Your task to perform on an android device: turn on javascript in the chrome app Image 0: 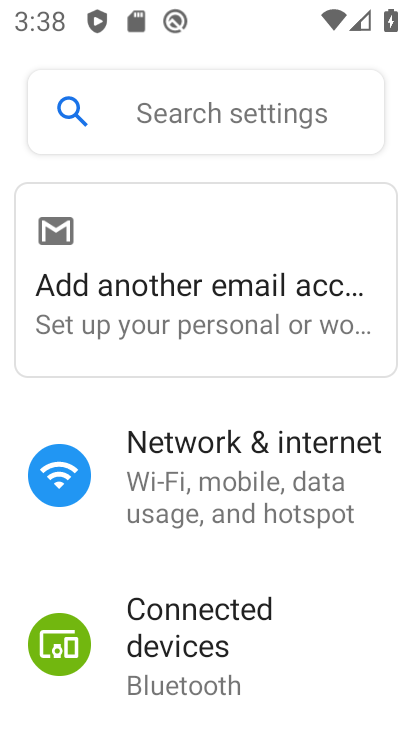
Step 0: press back button
Your task to perform on an android device: turn on javascript in the chrome app Image 1: 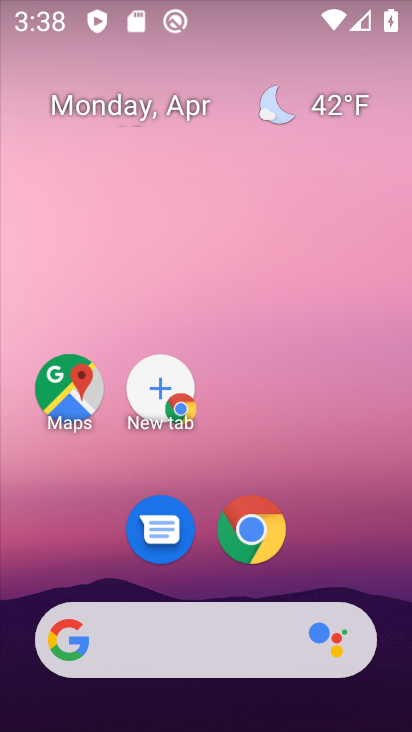
Step 1: click (248, 533)
Your task to perform on an android device: turn on javascript in the chrome app Image 2: 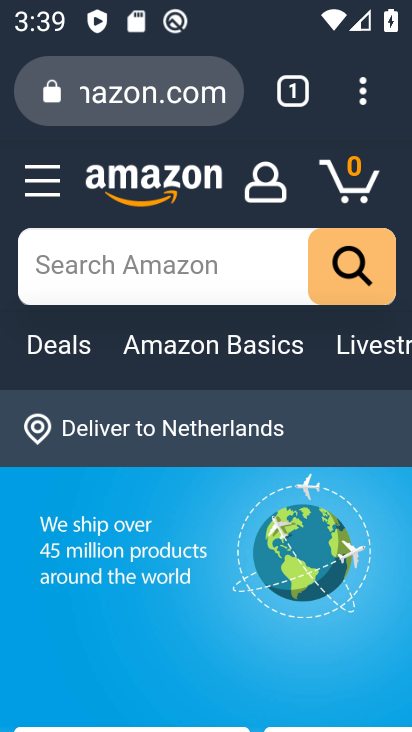
Step 2: click (370, 85)
Your task to perform on an android device: turn on javascript in the chrome app Image 3: 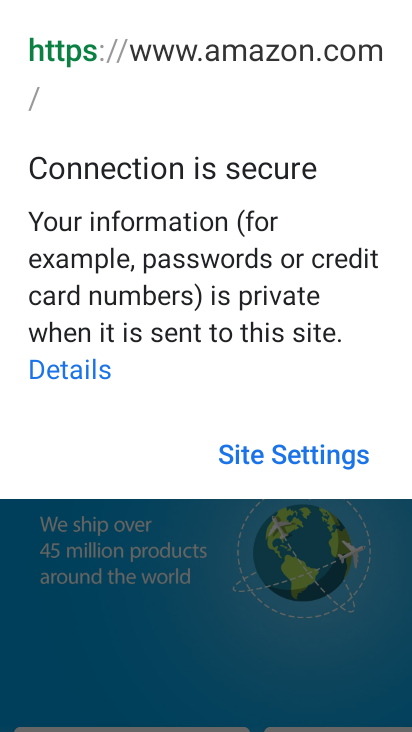
Step 3: click (189, 506)
Your task to perform on an android device: turn on javascript in the chrome app Image 4: 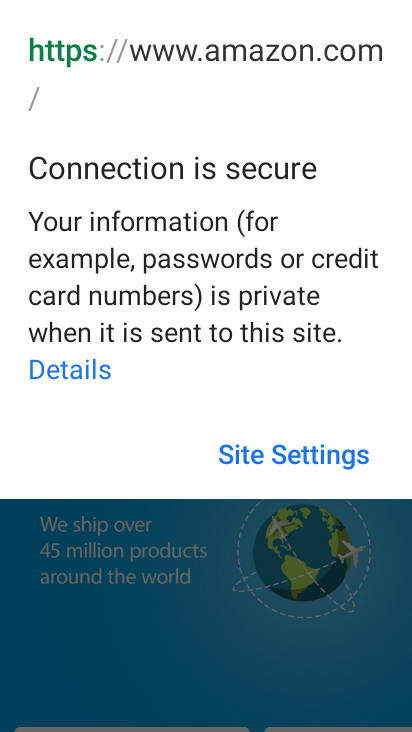
Step 4: click (188, 556)
Your task to perform on an android device: turn on javascript in the chrome app Image 5: 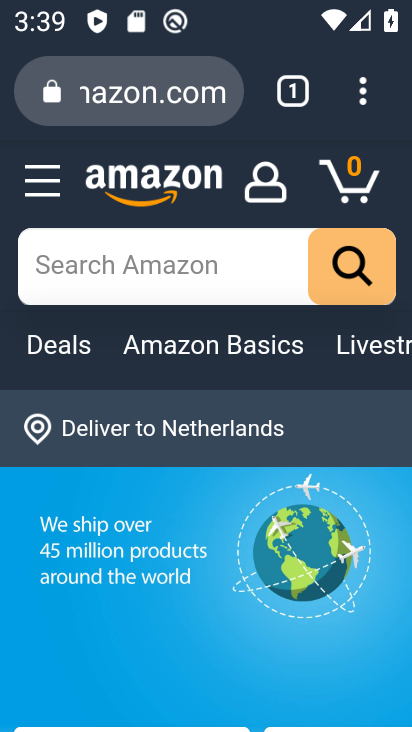
Step 5: click (365, 89)
Your task to perform on an android device: turn on javascript in the chrome app Image 6: 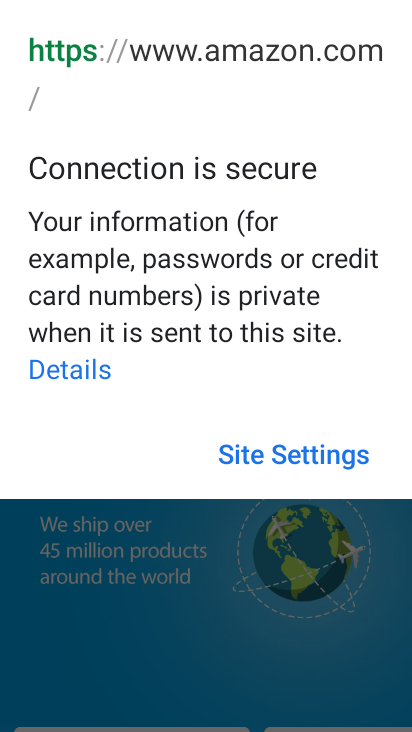
Step 6: click (118, 516)
Your task to perform on an android device: turn on javascript in the chrome app Image 7: 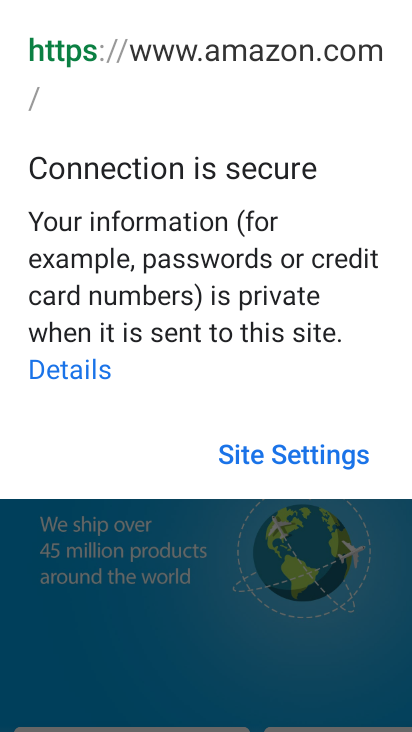
Step 7: click (164, 578)
Your task to perform on an android device: turn on javascript in the chrome app Image 8: 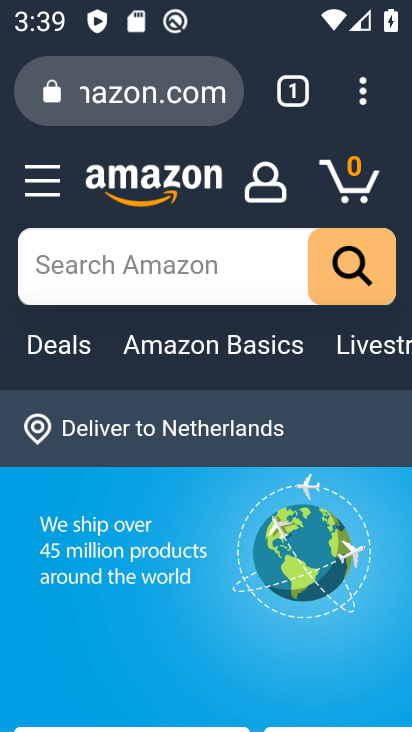
Step 8: click (359, 87)
Your task to perform on an android device: turn on javascript in the chrome app Image 9: 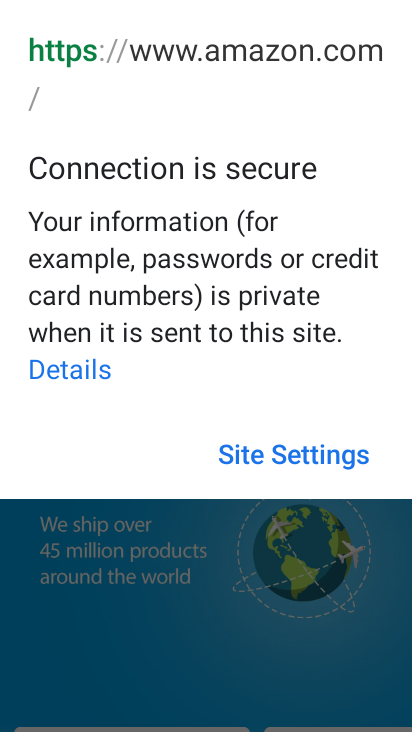
Step 9: click (145, 618)
Your task to perform on an android device: turn on javascript in the chrome app Image 10: 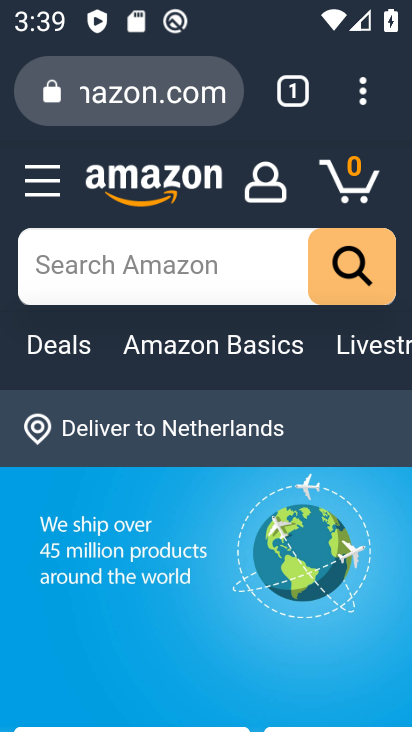
Step 10: drag from (365, 87) to (145, 548)
Your task to perform on an android device: turn on javascript in the chrome app Image 11: 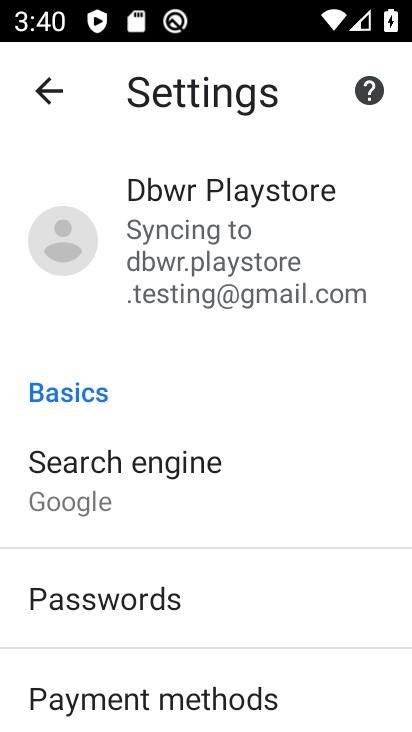
Step 11: drag from (162, 615) to (305, 60)
Your task to perform on an android device: turn on javascript in the chrome app Image 12: 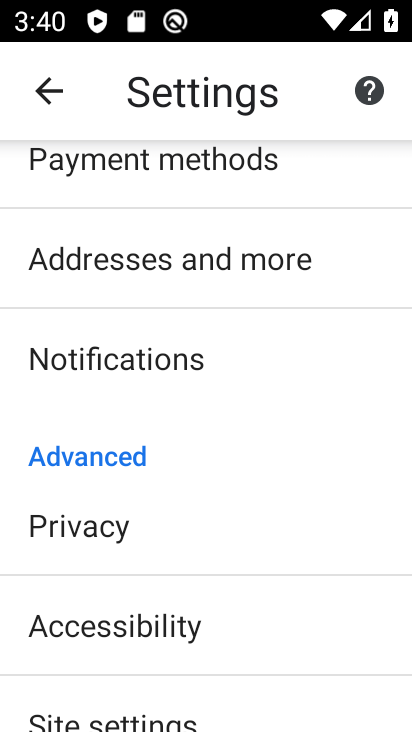
Step 12: drag from (182, 645) to (305, 187)
Your task to perform on an android device: turn on javascript in the chrome app Image 13: 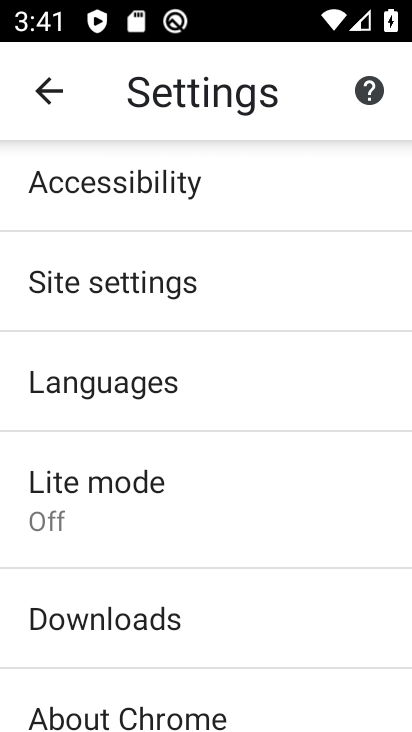
Step 13: click (175, 291)
Your task to perform on an android device: turn on javascript in the chrome app Image 14: 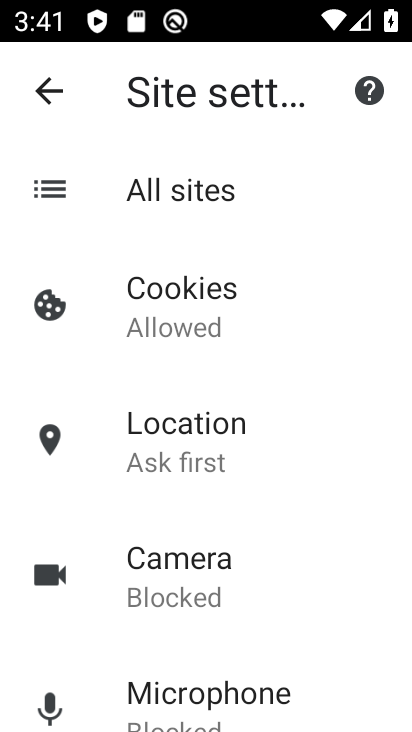
Step 14: drag from (195, 611) to (320, 144)
Your task to perform on an android device: turn on javascript in the chrome app Image 15: 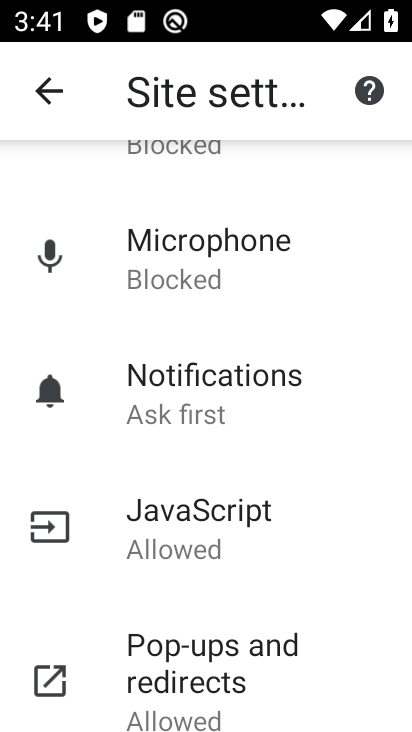
Step 15: click (171, 530)
Your task to perform on an android device: turn on javascript in the chrome app Image 16: 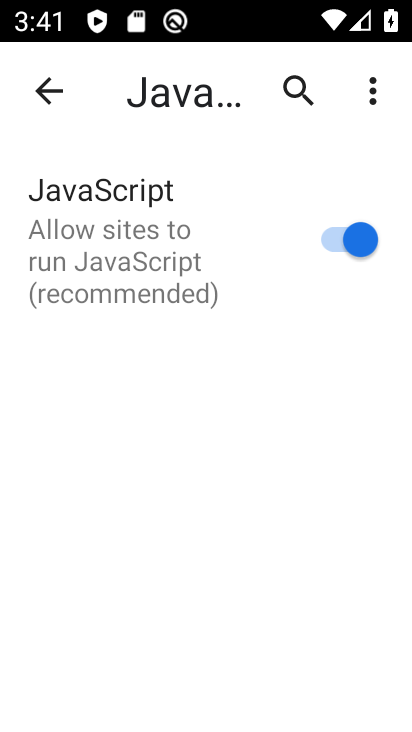
Step 16: task complete